Your task to perform on an android device: turn on priority inbox in the gmail app Image 0: 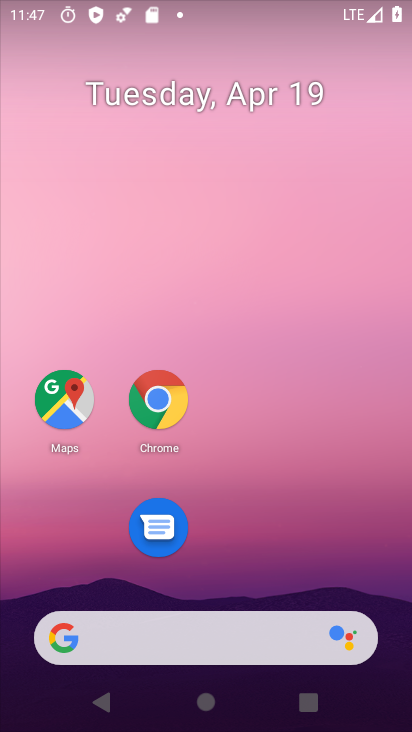
Step 0: drag from (251, 630) to (208, 36)
Your task to perform on an android device: turn on priority inbox in the gmail app Image 1: 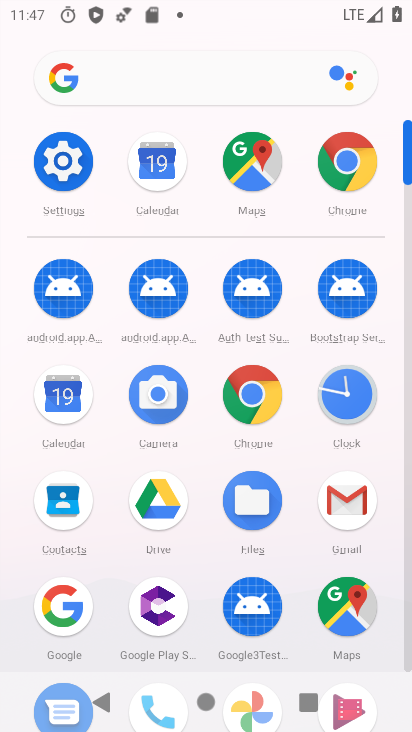
Step 1: click (342, 516)
Your task to perform on an android device: turn on priority inbox in the gmail app Image 2: 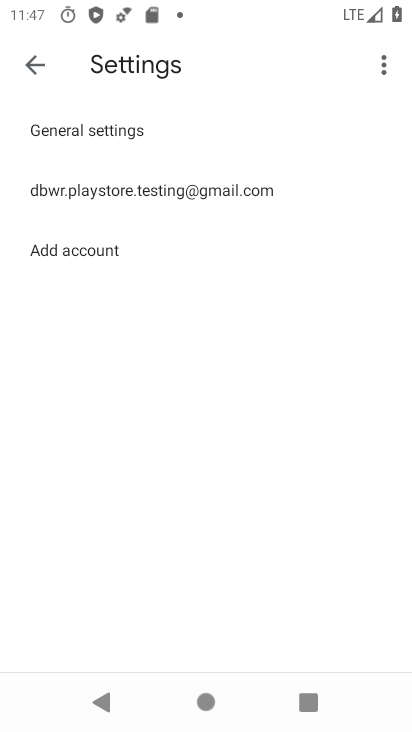
Step 2: click (117, 191)
Your task to perform on an android device: turn on priority inbox in the gmail app Image 3: 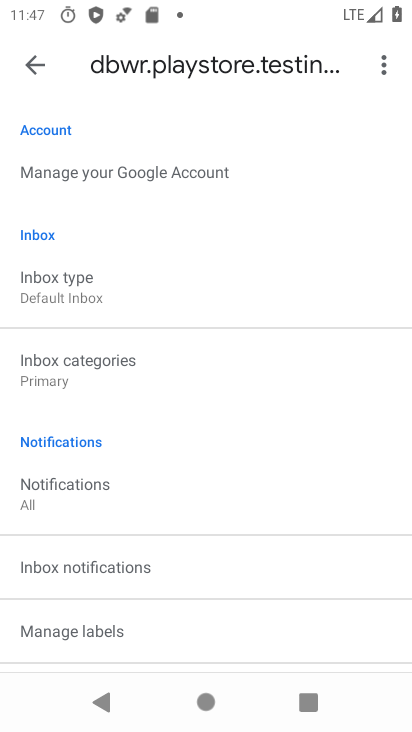
Step 3: click (63, 281)
Your task to perform on an android device: turn on priority inbox in the gmail app Image 4: 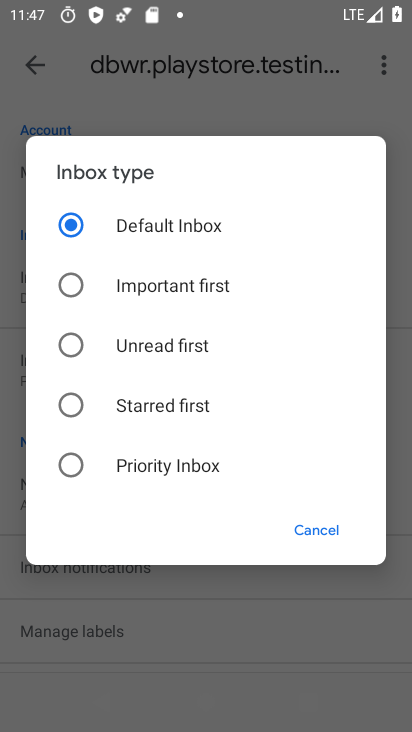
Step 4: click (170, 460)
Your task to perform on an android device: turn on priority inbox in the gmail app Image 5: 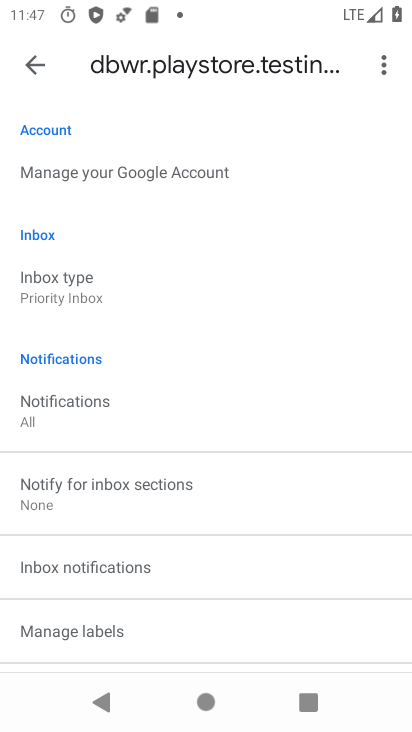
Step 5: task complete